Your task to perform on an android device: Go to Wikipedia Image 0: 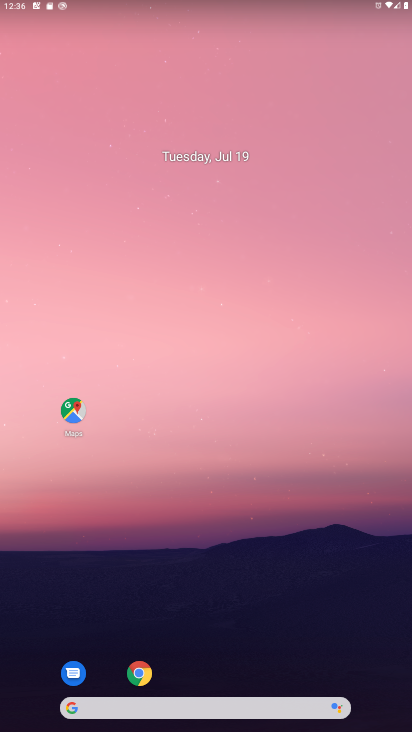
Step 0: drag from (198, 588) to (210, 302)
Your task to perform on an android device: Go to Wikipedia Image 1: 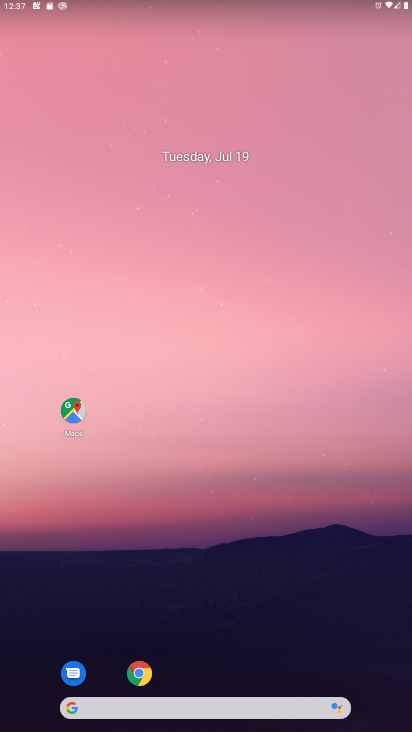
Step 1: click (136, 661)
Your task to perform on an android device: Go to Wikipedia Image 2: 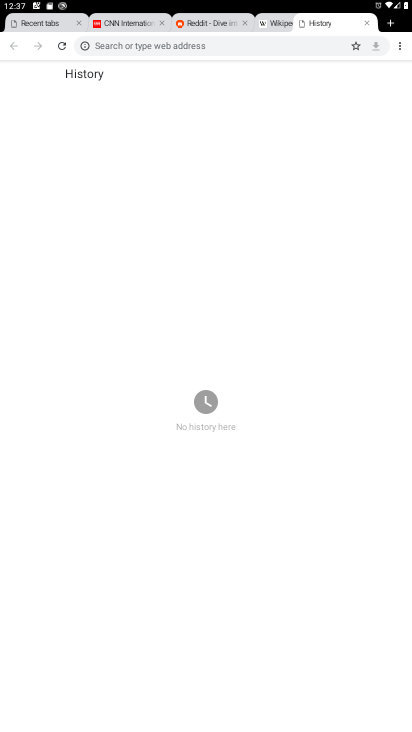
Step 2: click (393, 20)
Your task to perform on an android device: Go to Wikipedia Image 3: 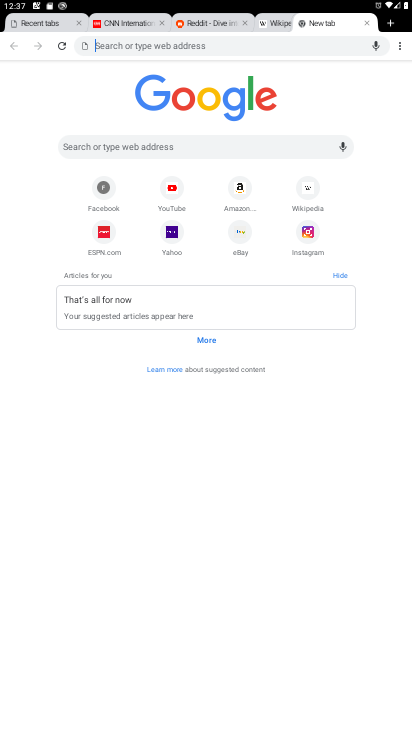
Step 3: click (299, 182)
Your task to perform on an android device: Go to Wikipedia Image 4: 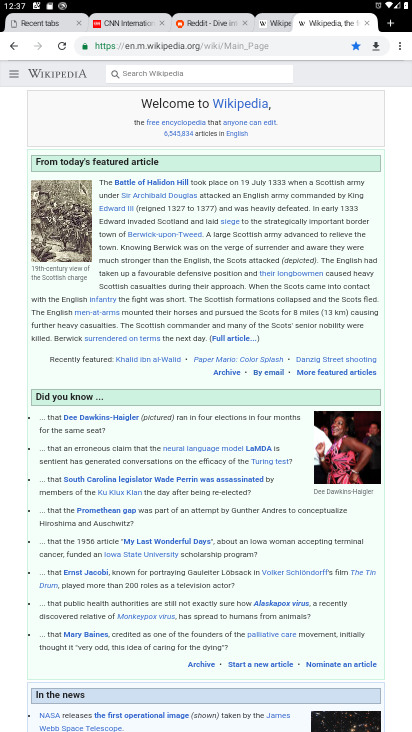
Step 4: task complete